Your task to perform on an android device: see sites visited before in the chrome app Image 0: 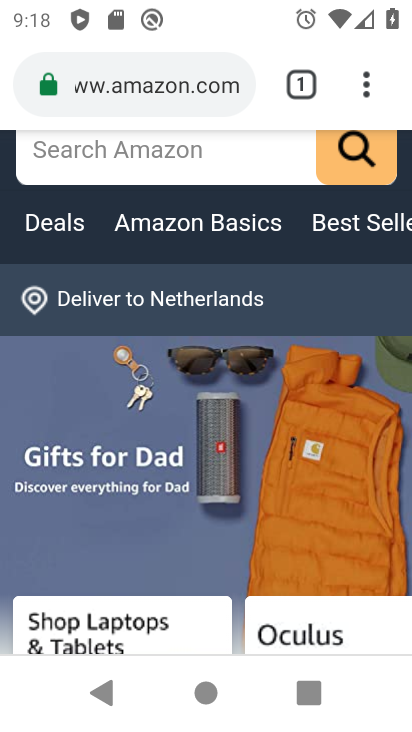
Step 0: drag from (230, 505) to (317, 132)
Your task to perform on an android device: see sites visited before in the chrome app Image 1: 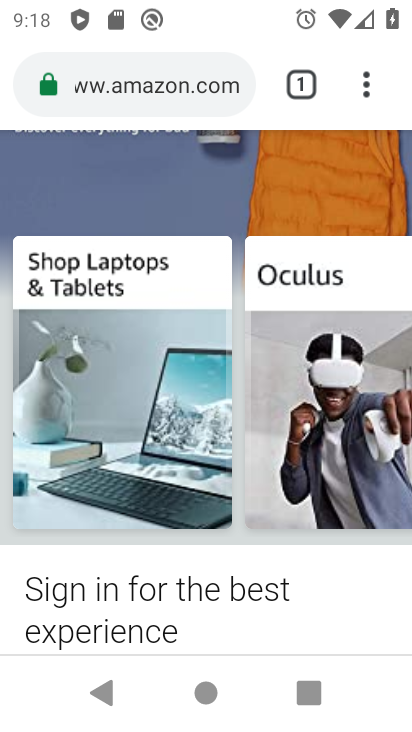
Step 1: press home button
Your task to perform on an android device: see sites visited before in the chrome app Image 2: 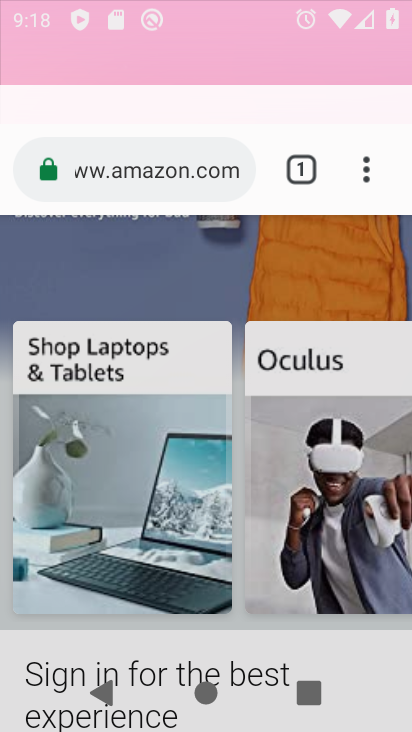
Step 2: drag from (233, 553) to (289, 218)
Your task to perform on an android device: see sites visited before in the chrome app Image 3: 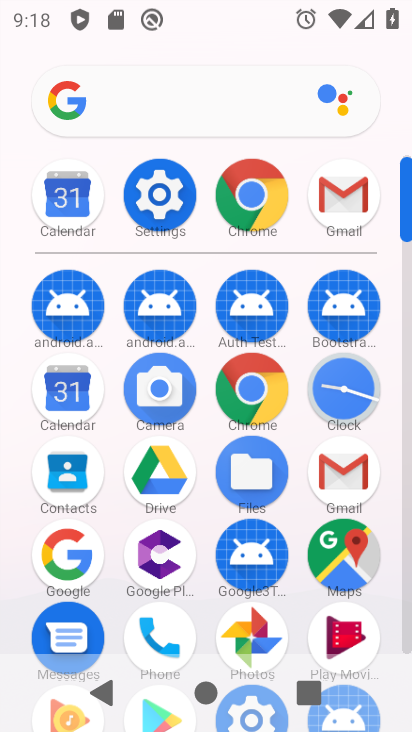
Step 3: click (249, 189)
Your task to perform on an android device: see sites visited before in the chrome app Image 4: 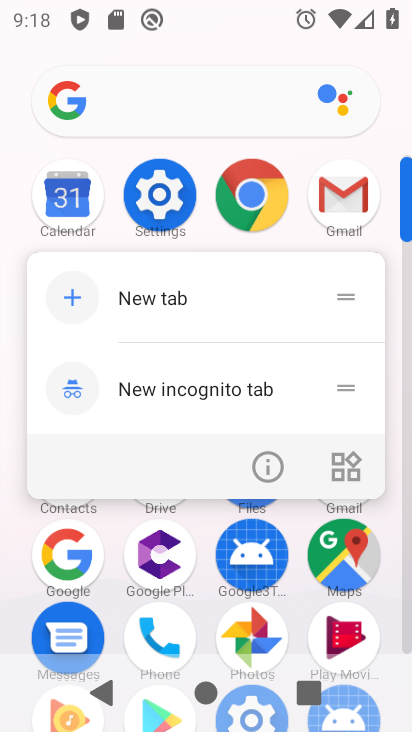
Step 4: click (262, 467)
Your task to perform on an android device: see sites visited before in the chrome app Image 5: 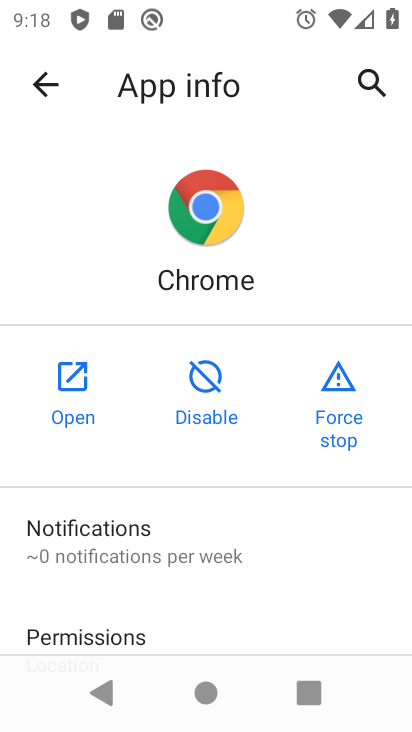
Step 5: click (65, 404)
Your task to perform on an android device: see sites visited before in the chrome app Image 6: 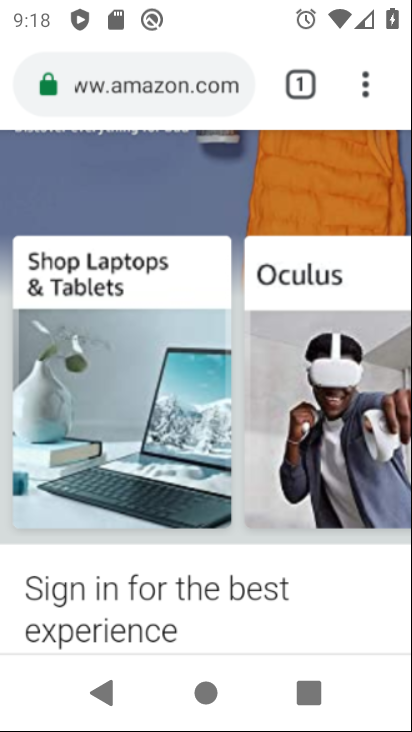
Step 6: drag from (199, 605) to (238, 309)
Your task to perform on an android device: see sites visited before in the chrome app Image 7: 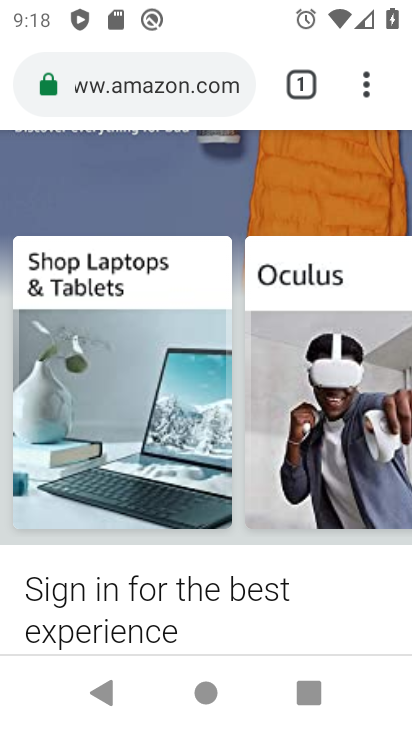
Step 7: drag from (235, 567) to (242, 61)
Your task to perform on an android device: see sites visited before in the chrome app Image 8: 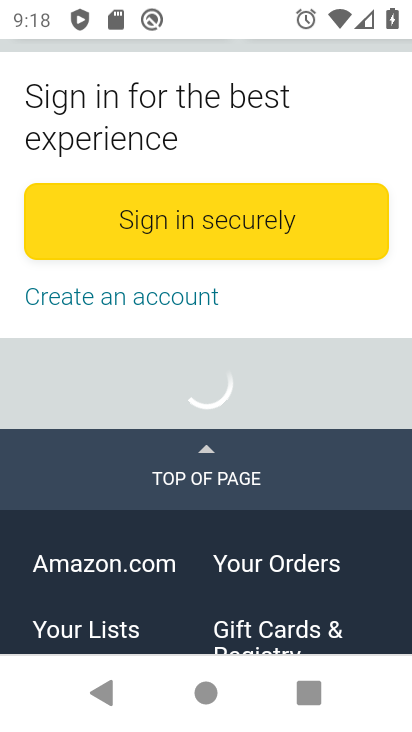
Step 8: drag from (229, 106) to (247, 651)
Your task to perform on an android device: see sites visited before in the chrome app Image 9: 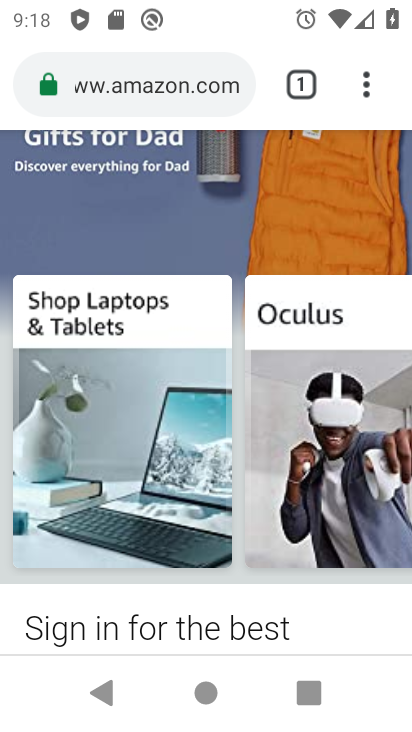
Step 9: drag from (230, 135) to (261, 543)
Your task to perform on an android device: see sites visited before in the chrome app Image 10: 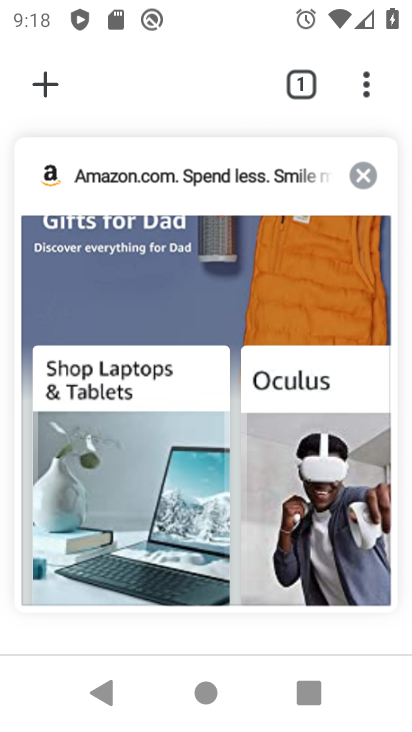
Step 10: click (196, 261)
Your task to perform on an android device: see sites visited before in the chrome app Image 11: 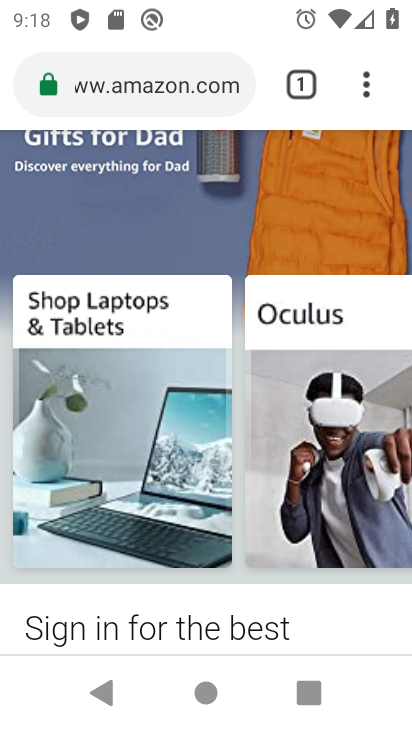
Step 11: drag from (253, 258) to (253, 92)
Your task to perform on an android device: see sites visited before in the chrome app Image 12: 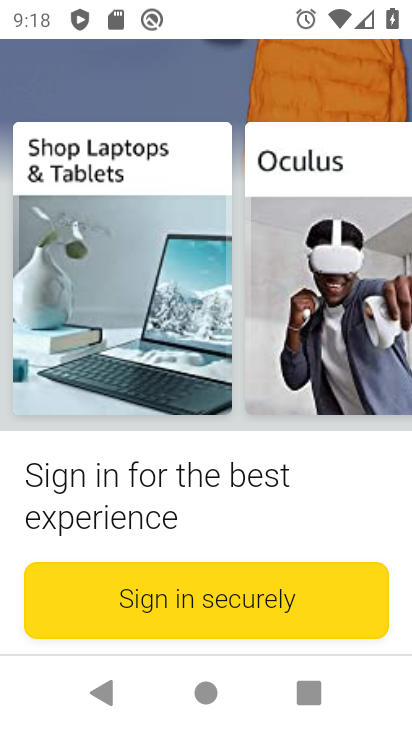
Step 12: drag from (232, 438) to (301, 89)
Your task to perform on an android device: see sites visited before in the chrome app Image 13: 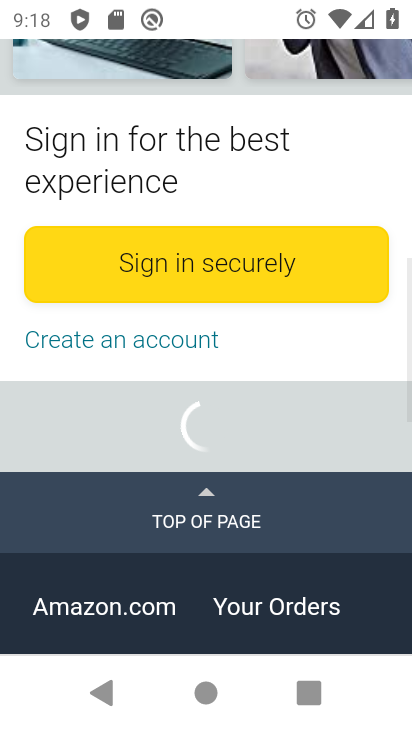
Step 13: drag from (253, 169) to (293, 583)
Your task to perform on an android device: see sites visited before in the chrome app Image 14: 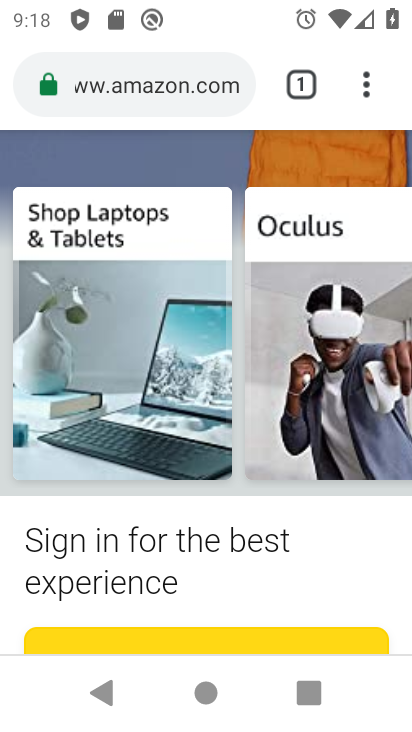
Step 14: click (355, 69)
Your task to perform on an android device: see sites visited before in the chrome app Image 15: 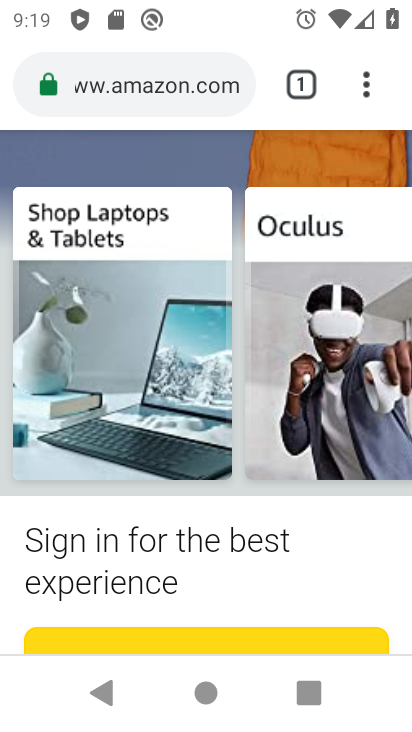
Step 15: task complete